Your task to perform on an android device: see sites visited before in the chrome app Image 0: 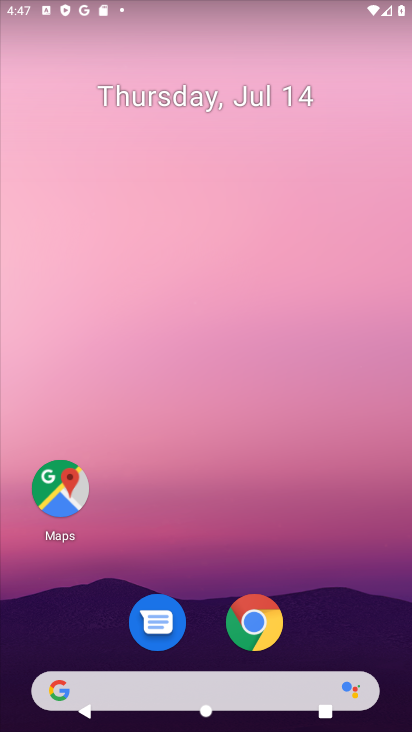
Step 0: click (213, 81)
Your task to perform on an android device: see sites visited before in the chrome app Image 1: 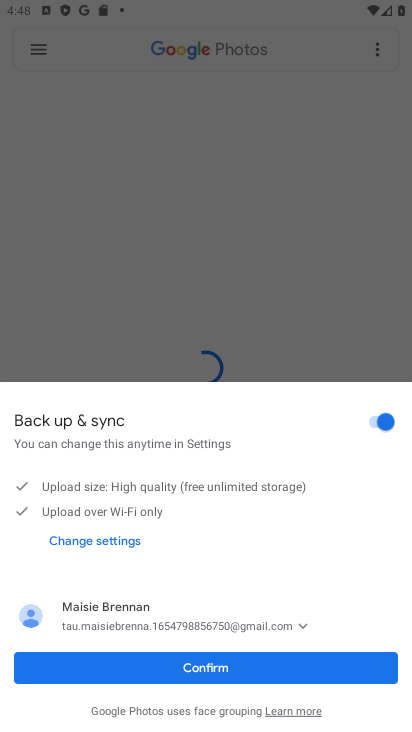
Step 1: press home button
Your task to perform on an android device: see sites visited before in the chrome app Image 2: 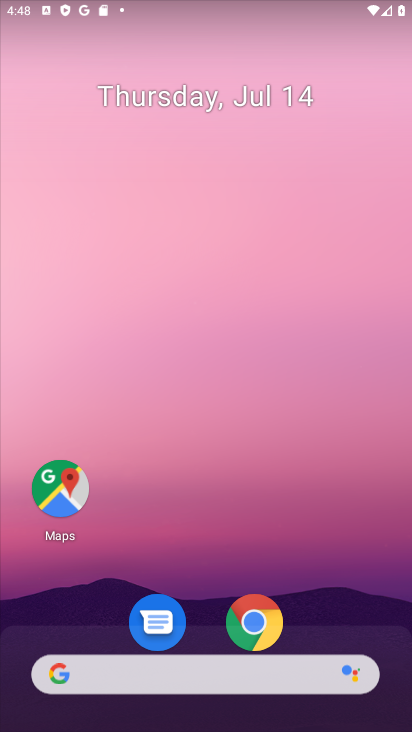
Step 2: click (257, 622)
Your task to perform on an android device: see sites visited before in the chrome app Image 3: 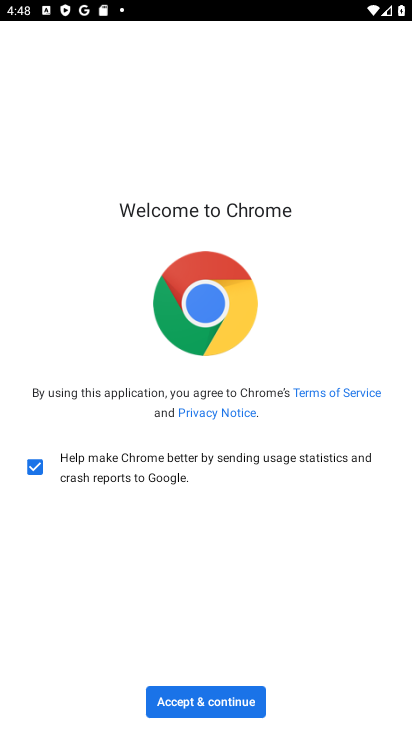
Step 3: click (241, 704)
Your task to perform on an android device: see sites visited before in the chrome app Image 4: 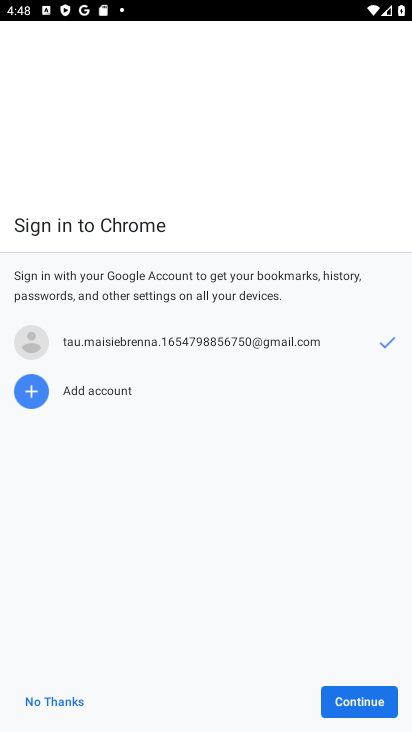
Step 4: click (361, 714)
Your task to perform on an android device: see sites visited before in the chrome app Image 5: 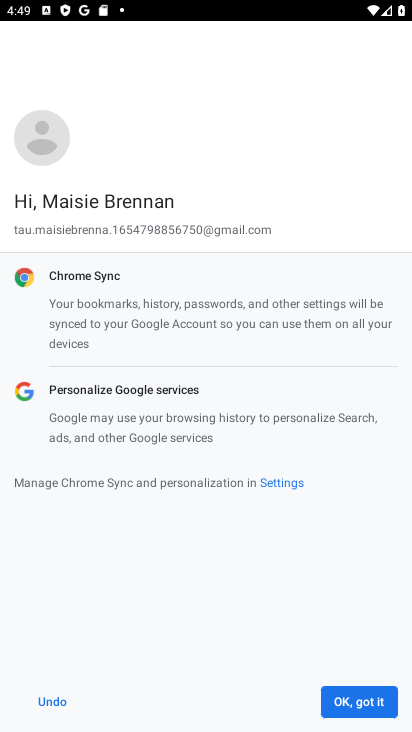
Step 5: click (372, 703)
Your task to perform on an android device: see sites visited before in the chrome app Image 6: 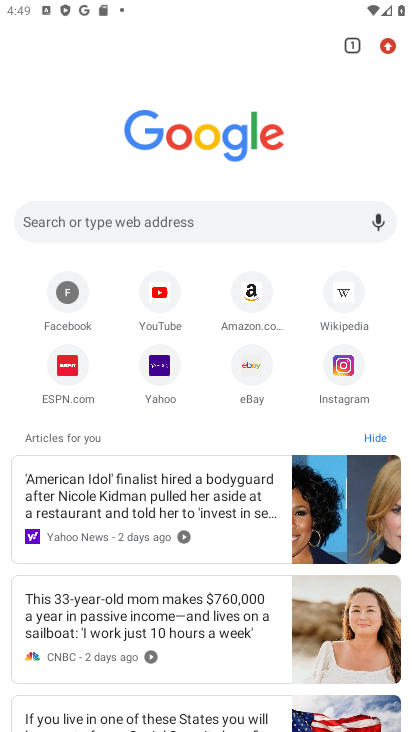
Step 6: click (392, 42)
Your task to perform on an android device: see sites visited before in the chrome app Image 7: 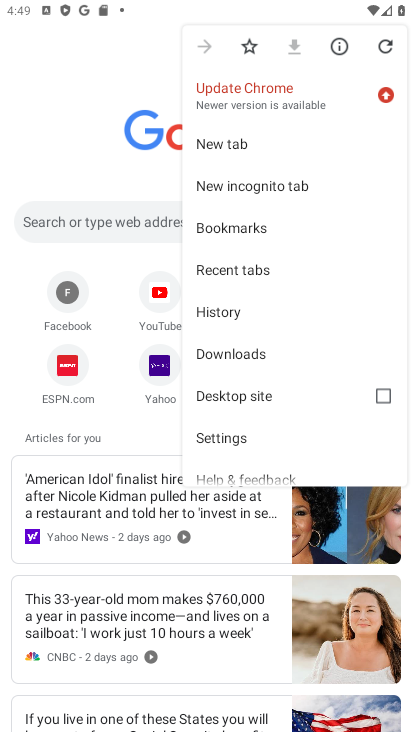
Step 7: click (253, 282)
Your task to perform on an android device: see sites visited before in the chrome app Image 8: 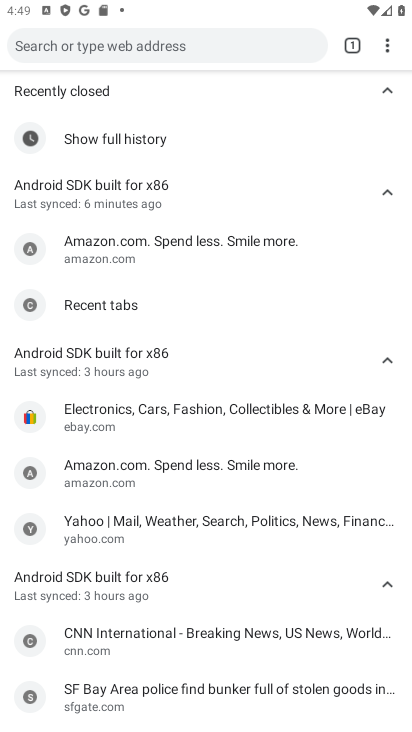
Step 8: task complete